Your task to perform on an android device: toggle wifi Image 0: 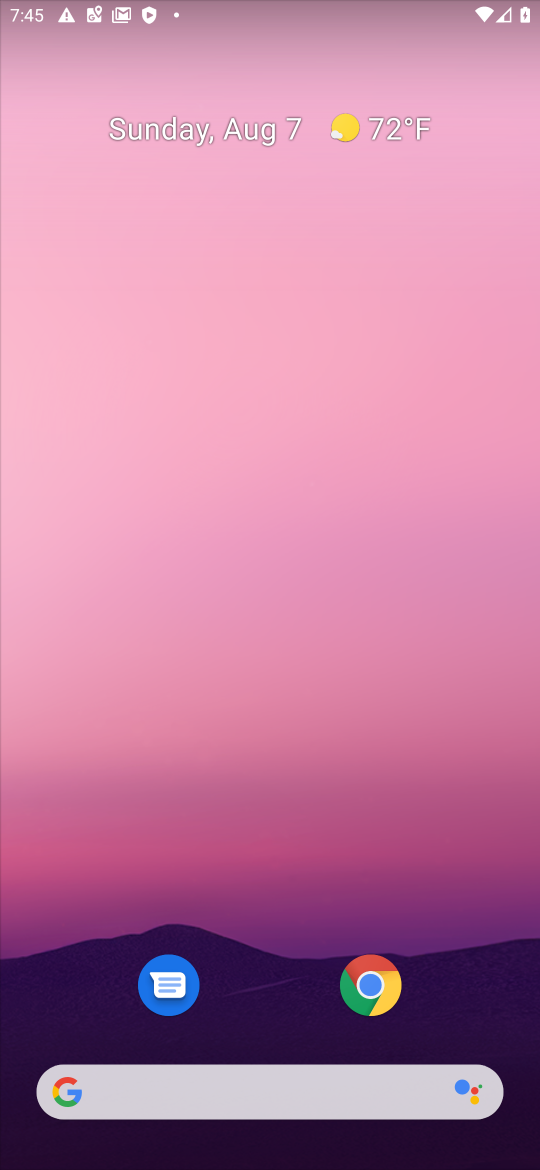
Step 0: drag from (297, 1008) to (289, 356)
Your task to perform on an android device: toggle wifi Image 1: 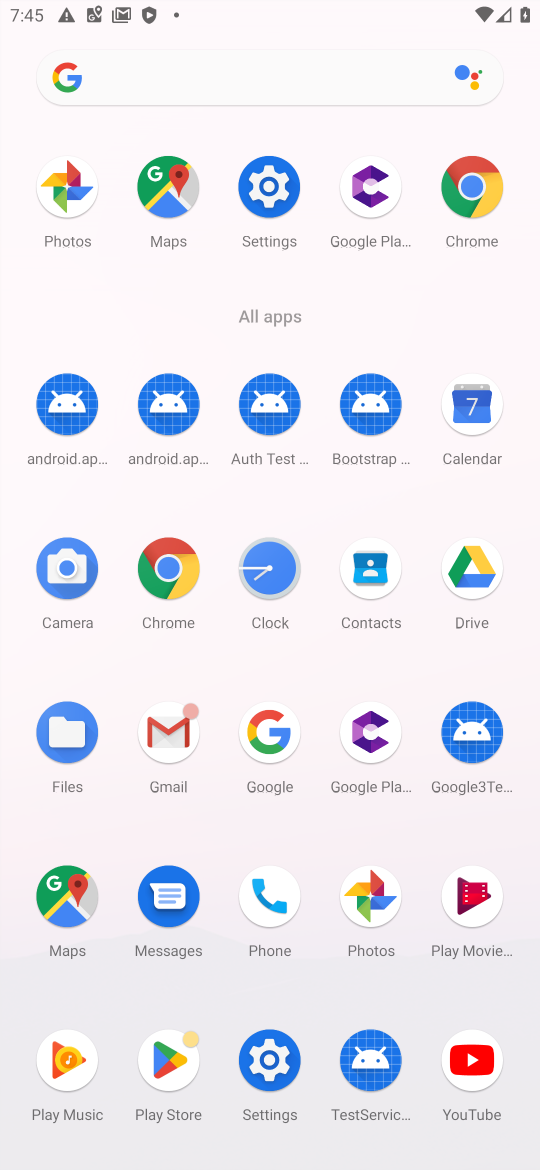
Step 1: click (272, 161)
Your task to perform on an android device: toggle wifi Image 2: 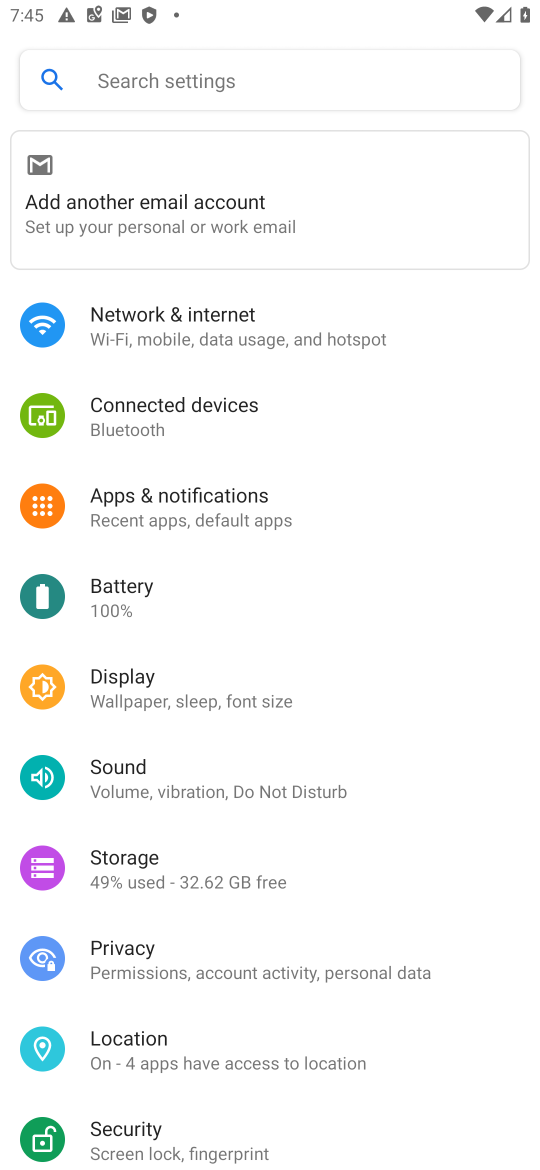
Step 2: click (171, 312)
Your task to perform on an android device: toggle wifi Image 3: 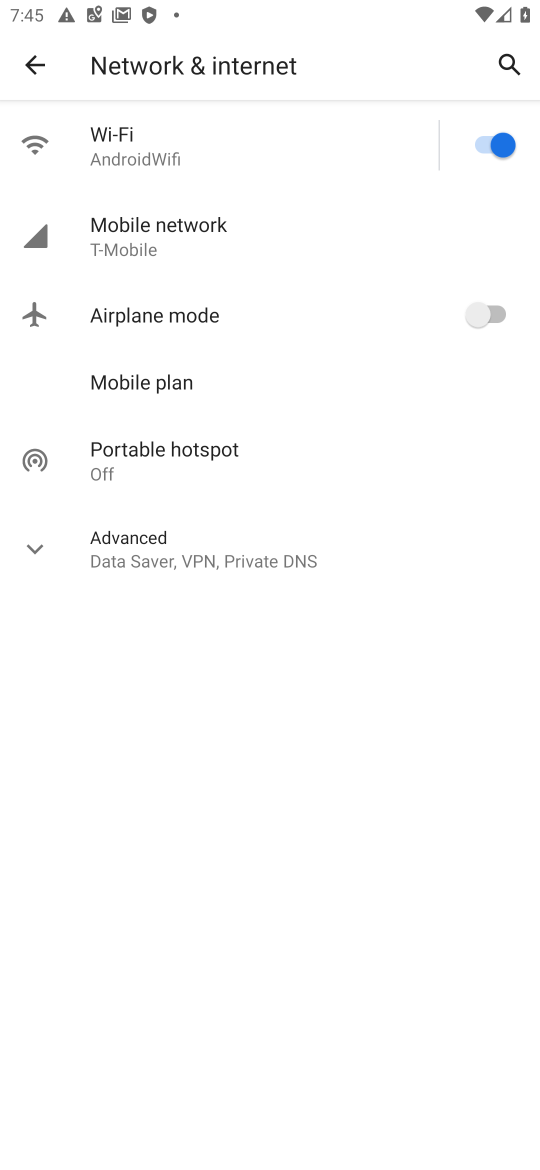
Step 3: click (480, 133)
Your task to perform on an android device: toggle wifi Image 4: 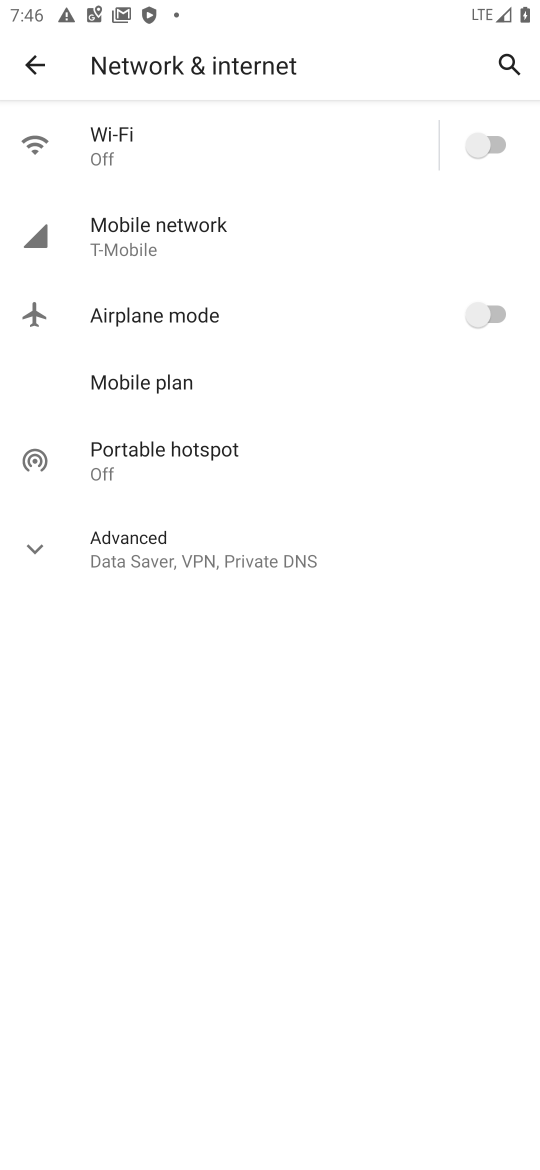
Step 4: task complete